Your task to perform on an android device: Go to calendar. Show me events next week Image 0: 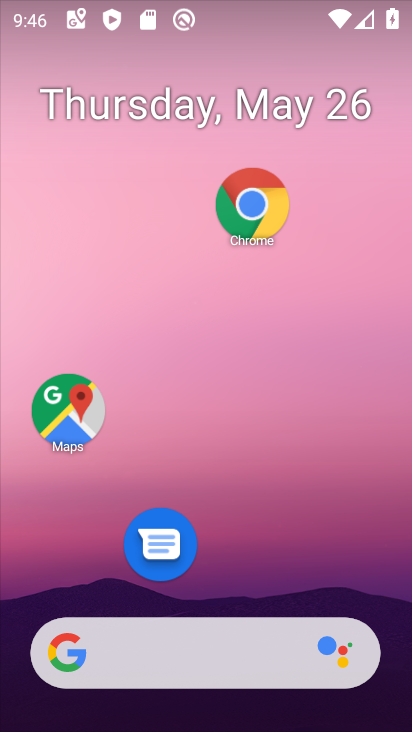
Step 0: press home button
Your task to perform on an android device: Go to calendar. Show me events next week Image 1: 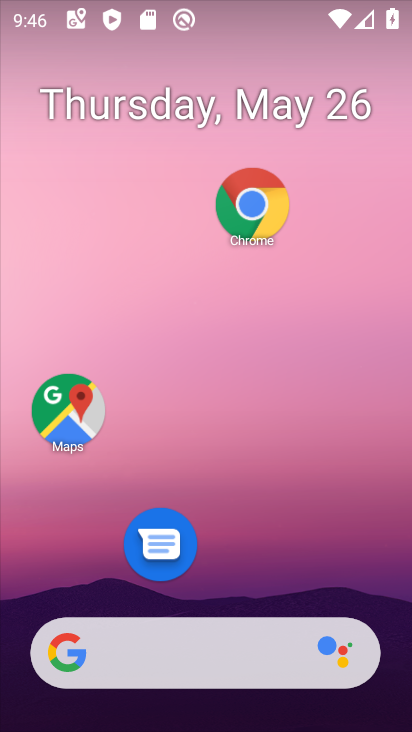
Step 1: drag from (215, 594) to (194, 79)
Your task to perform on an android device: Go to calendar. Show me events next week Image 2: 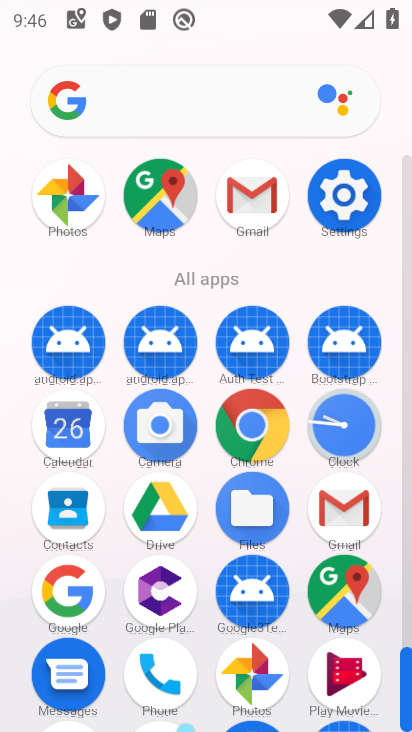
Step 2: click (67, 426)
Your task to perform on an android device: Go to calendar. Show me events next week Image 3: 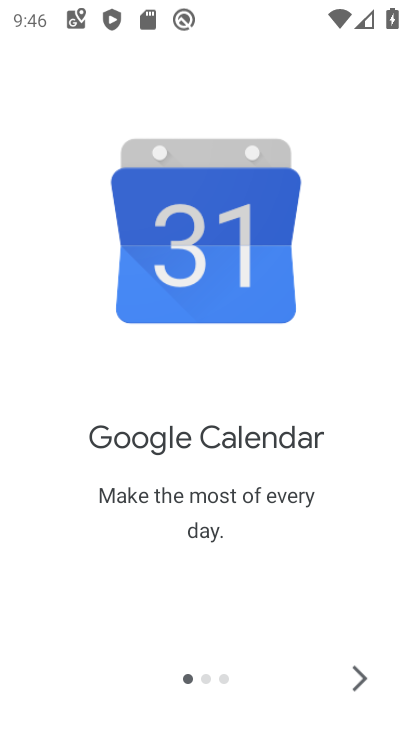
Step 3: click (349, 671)
Your task to perform on an android device: Go to calendar. Show me events next week Image 4: 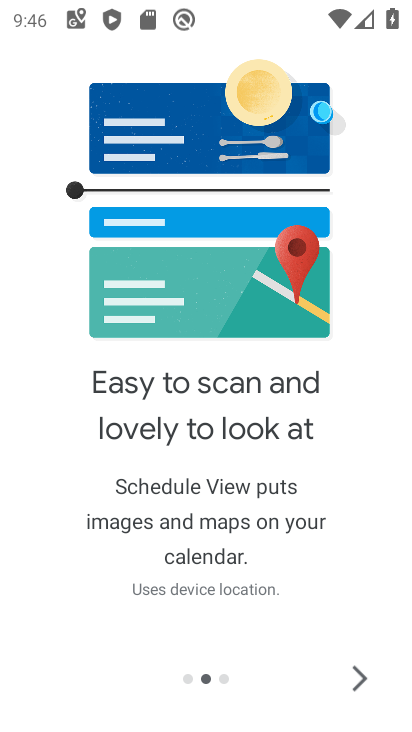
Step 4: click (351, 669)
Your task to perform on an android device: Go to calendar. Show me events next week Image 5: 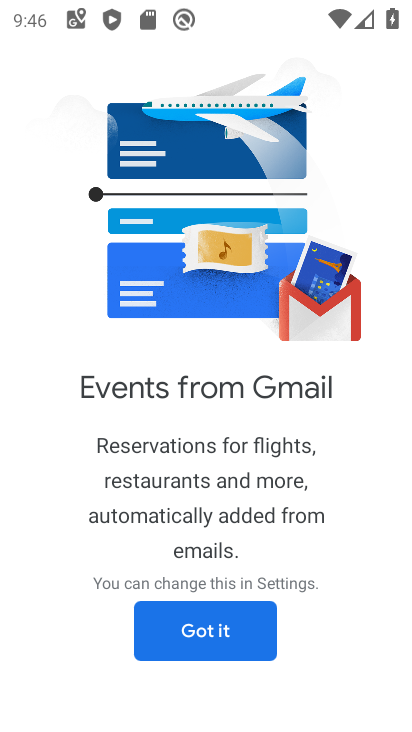
Step 5: click (212, 635)
Your task to perform on an android device: Go to calendar. Show me events next week Image 6: 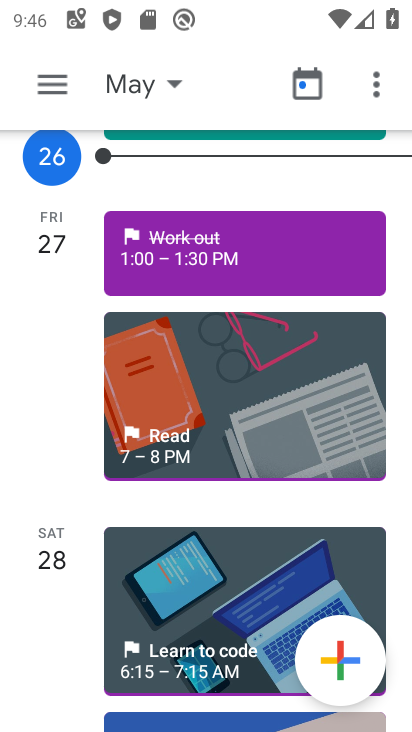
Step 6: task complete